Your task to perform on an android device: Open Youtube and go to the subscriptions tab Image 0: 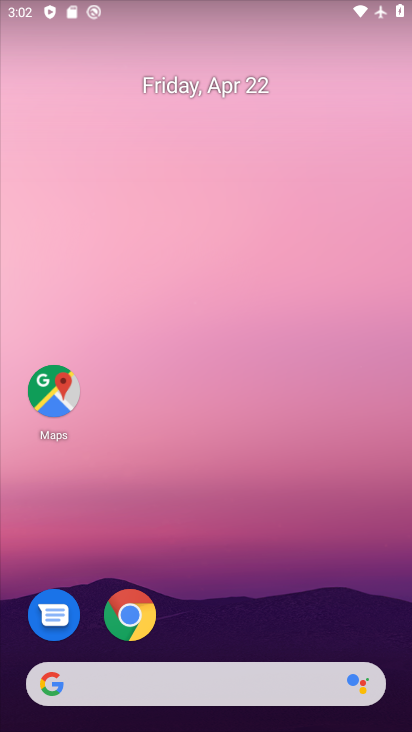
Step 0: drag from (342, 597) to (294, 262)
Your task to perform on an android device: Open Youtube and go to the subscriptions tab Image 1: 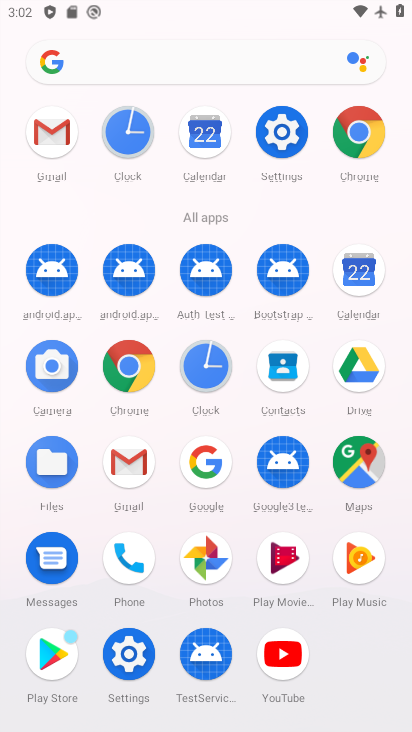
Step 1: click (287, 654)
Your task to perform on an android device: Open Youtube and go to the subscriptions tab Image 2: 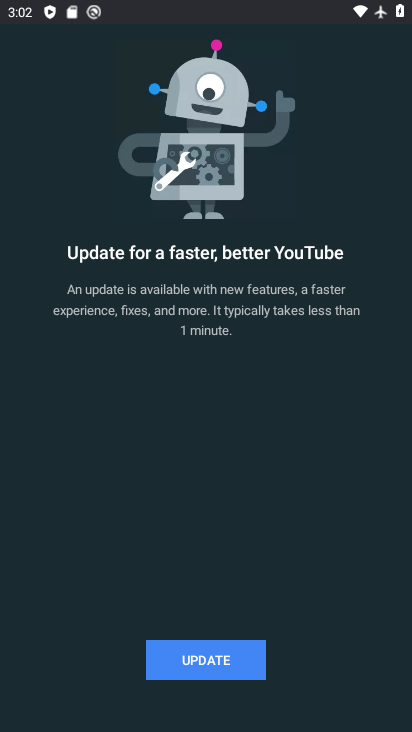
Step 2: click (225, 662)
Your task to perform on an android device: Open Youtube and go to the subscriptions tab Image 3: 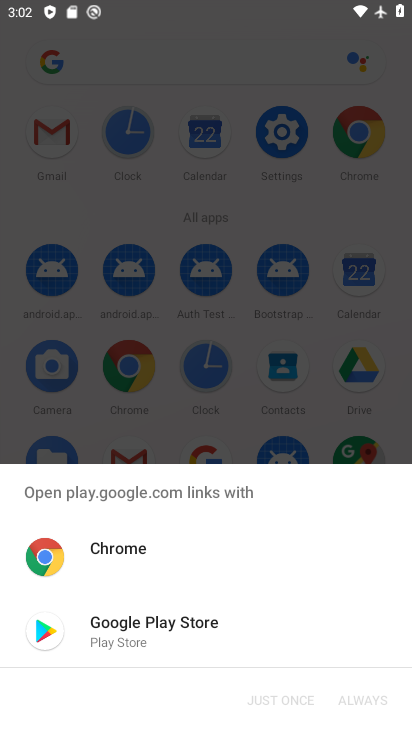
Step 3: click (208, 651)
Your task to perform on an android device: Open Youtube and go to the subscriptions tab Image 4: 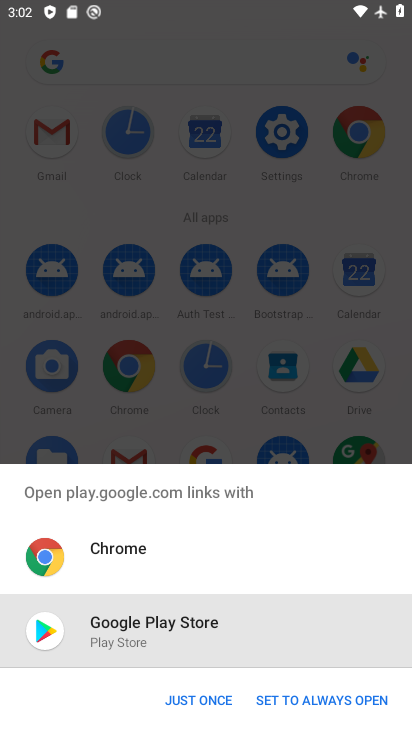
Step 4: click (215, 698)
Your task to perform on an android device: Open Youtube and go to the subscriptions tab Image 5: 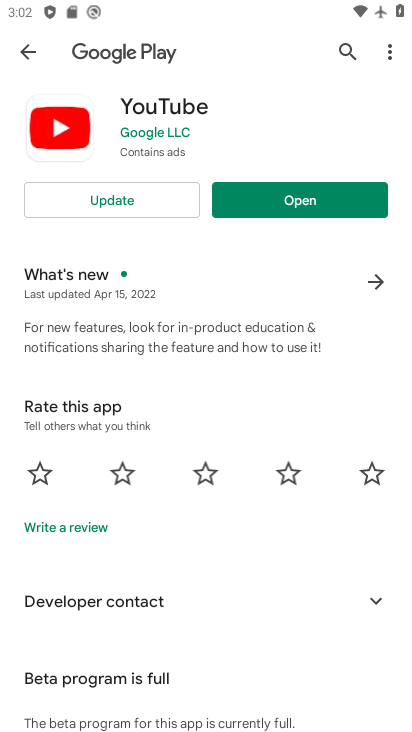
Step 5: click (116, 204)
Your task to perform on an android device: Open Youtube and go to the subscriptions tab Image 6: 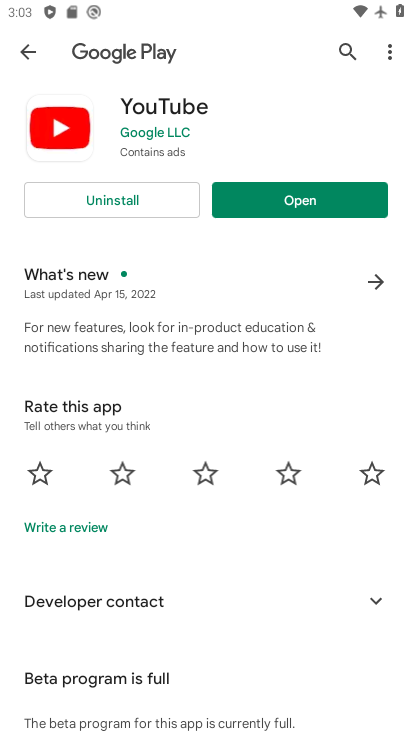
Step 6: click (256, 194)
Your task to perform on an android device: Open Youtube and go to the subscriptions tab Image 7: 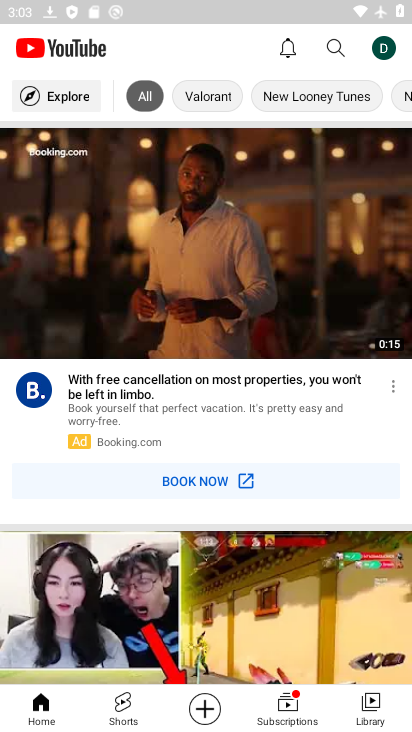
Step 7: click (299, 701)
Your task to perform on an android device: Open Youtube and go to the subscriptions tab Image 8: 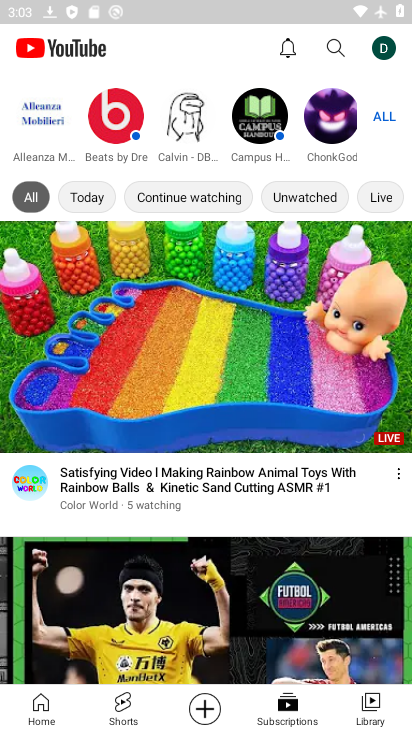
Step 8: task complete